Your task to perform on an android device: read, delete, or share a saved page in the chrome app Image 0: 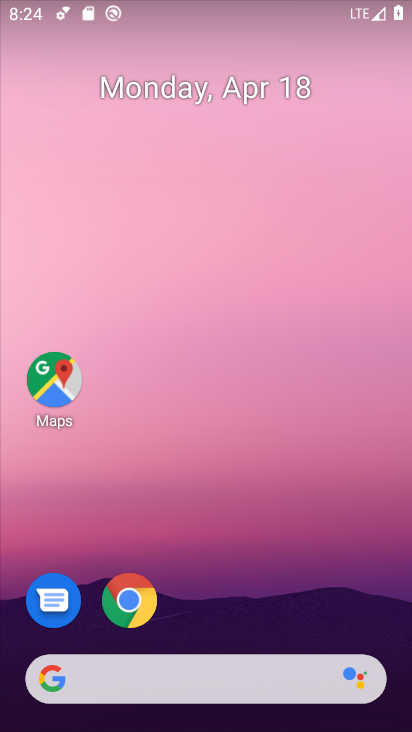
Step 0: drag from (362, 553) to (211, 28)
Your task to perform on an android device: read, delete, or share a saved page in the chrome app Image 1: 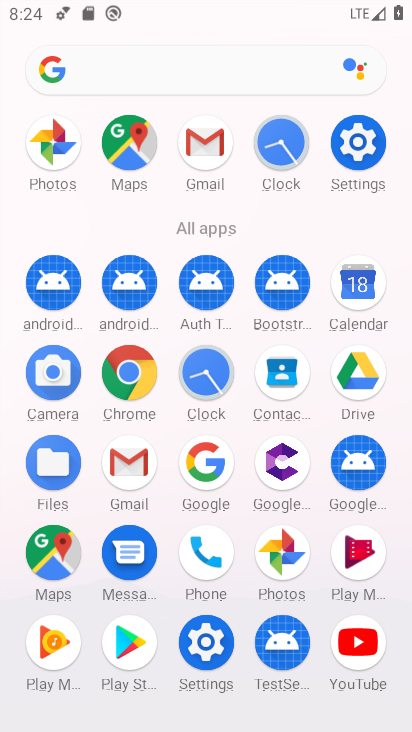
Step 1: click (135, 366)
Your task to perform on an android device: read, delete, or share a saved page in the chrome app Image 2: 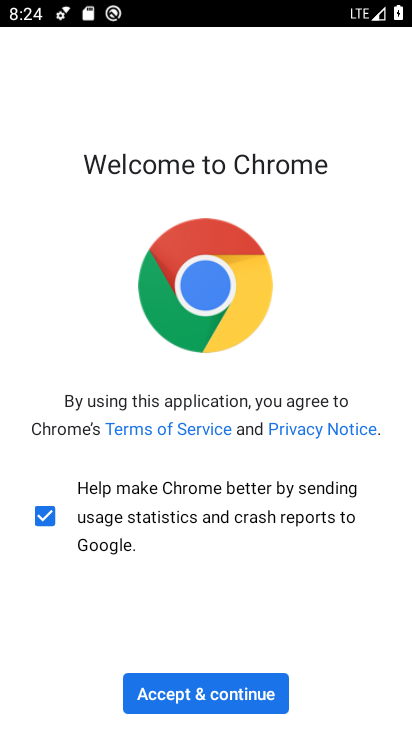
Step 2: click (188, 696)
Your task to perform on an android device: read, delete, or share a saved page in the chrome app Image 3: 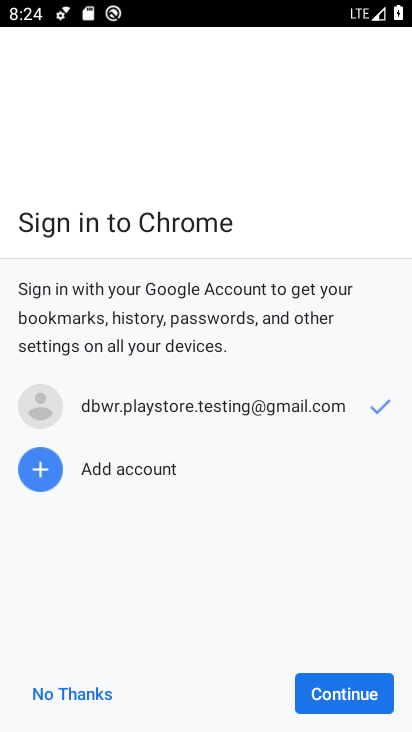
Step 3: click (363, 697)
Your task to perform on an android device: read, delete, or share a saved page in the chrome app Image 4: 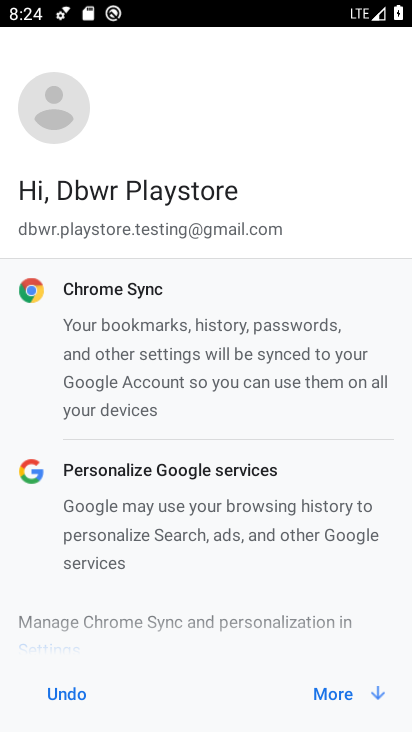
Step 4: click (350, 690)
Your task to perform on an android device: read, delete, or share a saved page in the chrome app Image 5: 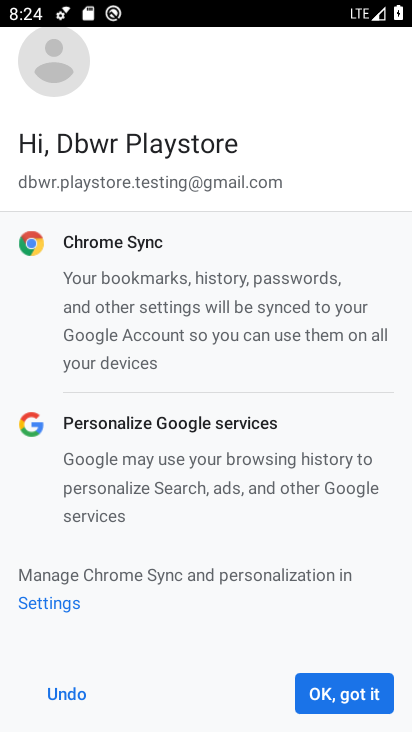
Step 5: click (338, 702)
Your task to perform on an android device: read, delete, or share a saved page in the chrome app Image 6: 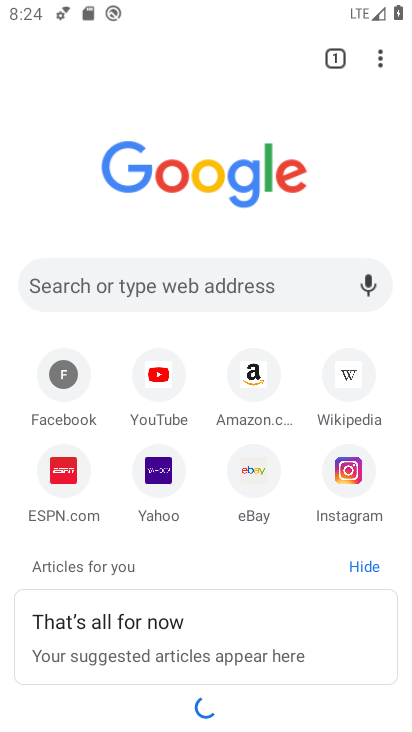
Step 6: task complete